Your task to perform on an android device: Show me popular videos on Youtube Image 0: 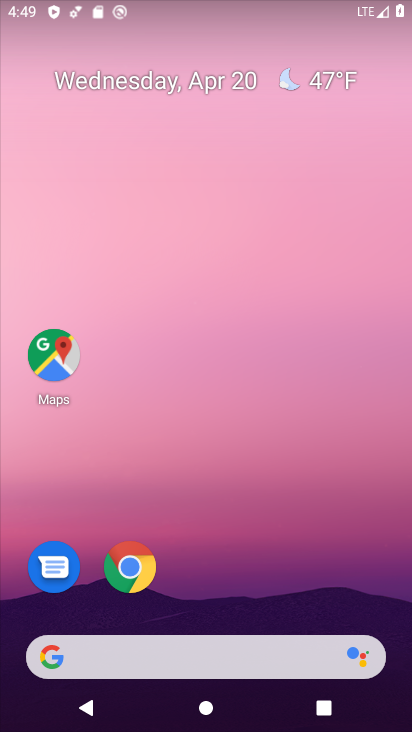
Step 0: drag from (255, 210) to (251, 22)
Your task to perform on an android device: Show me popular videos on Youtube Image 1: 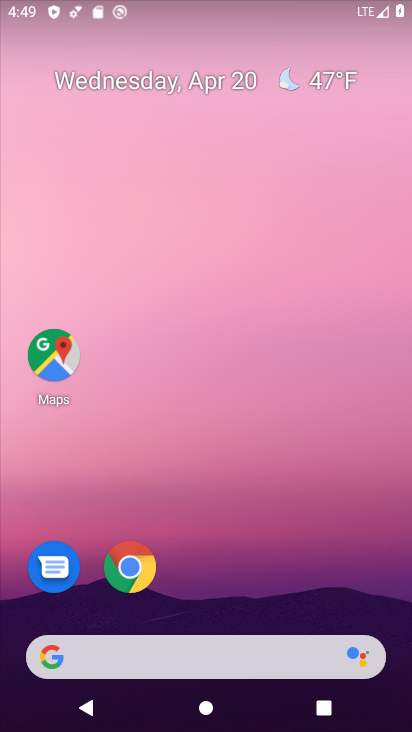
Step 1: drag from (341, 336) to (298, 50)
Your task to perform on an android device: Show me popular videos on Youtube Image 2: 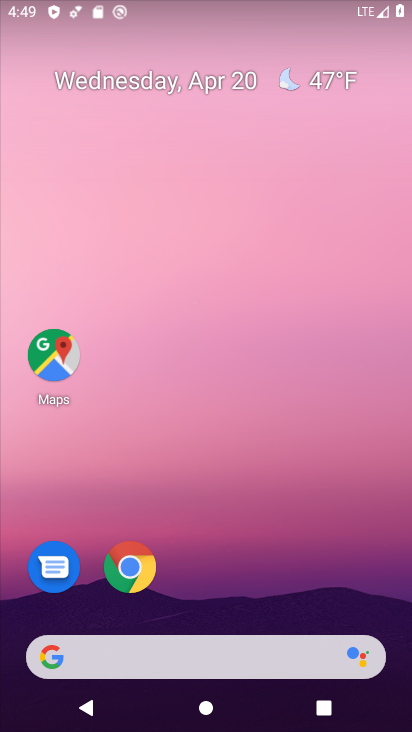
Step 2: drag from (398, 635) to (333, 0)
Your task to perform on an android device: Show me popular videos on Youtube Image 3: 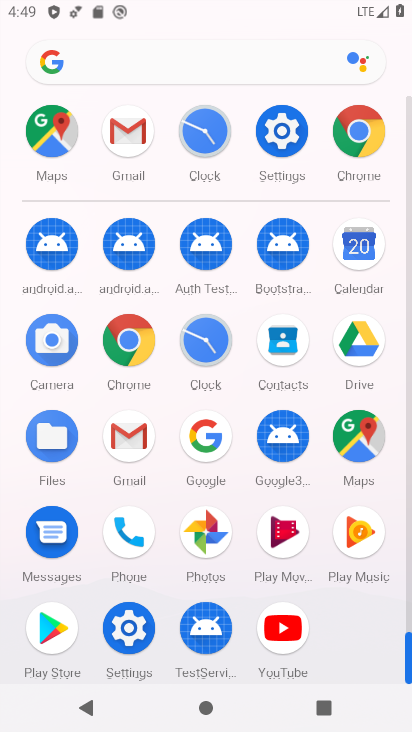
Step 3: click (281, 625)
Your task to perform on an android device: Show me popular videos on Youtube Image 4: 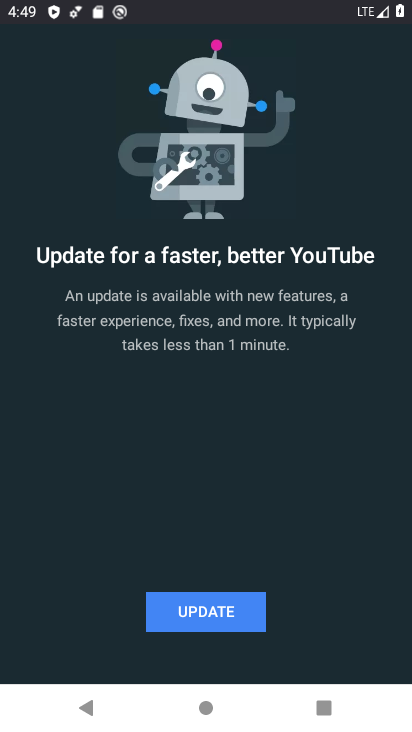
Step 4: click (218, 619)
Your task to perform on an android device: Show me popular videos on Youtube Image 5: 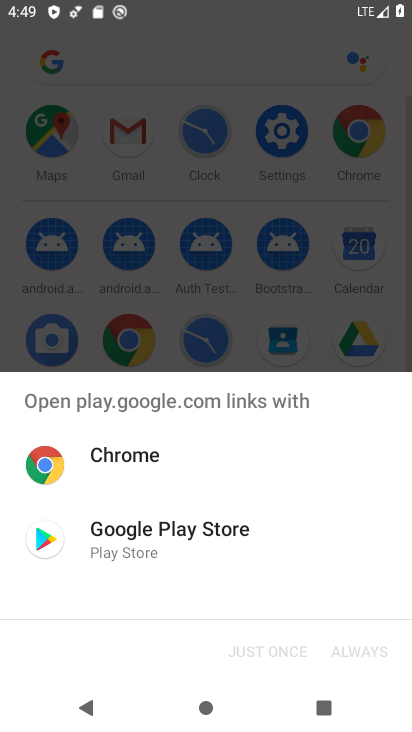
Step 5: click (209, 538)
Your task to perform on an android device: Show me popular videos on Youtube Image 6: 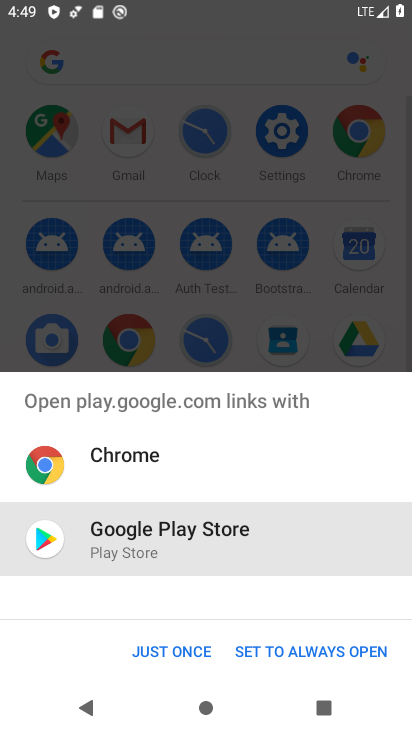
Step 6: click (257, 656)
Your task to perform on an android device: Show me popular videos on Youtube Image 7: 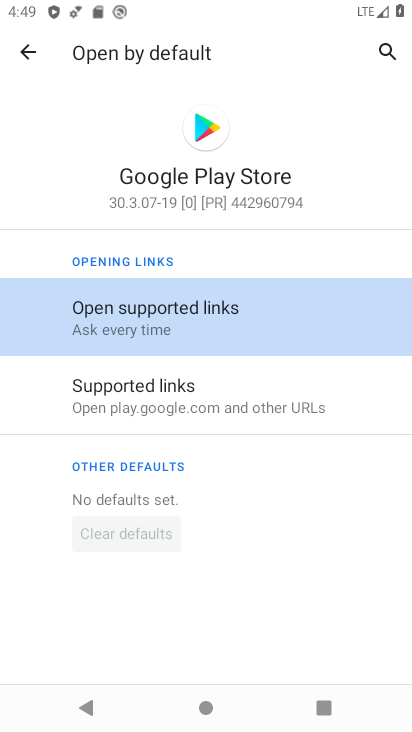
Step 7: press back button
Your task to perform on an android device: Show me popular videos on Youtube Image 8: 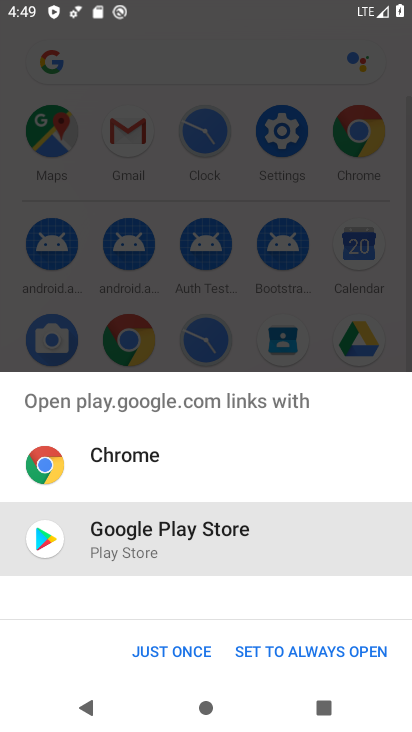
Step 8: click (170, 652)
Your task to perform on an android device: Show me popular videos on Youtube Image 9: 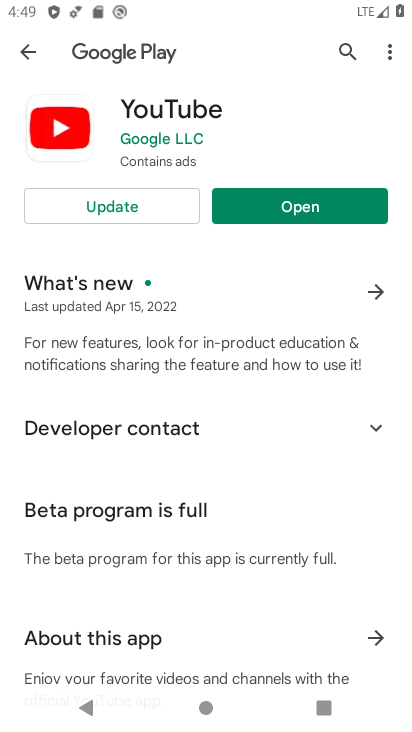
Step 9: click (135, 201)
Your task to perform on an android device: Show me popular videos on Youtube Image 10: 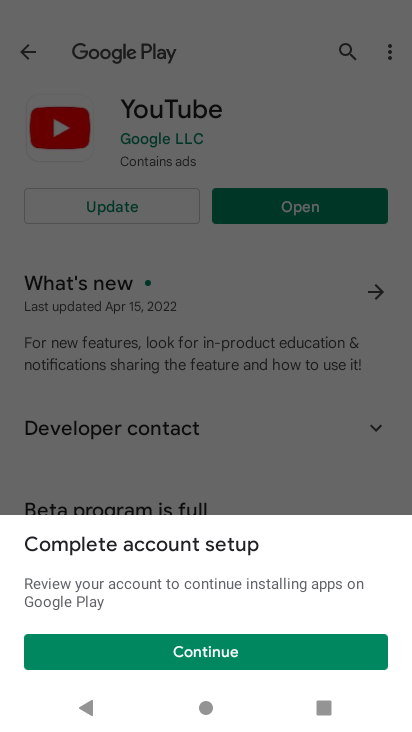
Step 10: click (198, 661)
Your task to perform on an android device: Show me popular videos on Youtube Image 11: 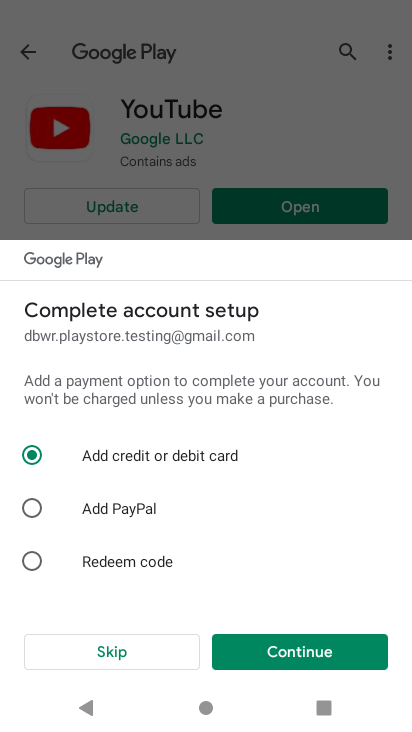
Step 11: click (149, 650)
Your task to perform on an android device: Show me popular videos on Youtube Image 12: 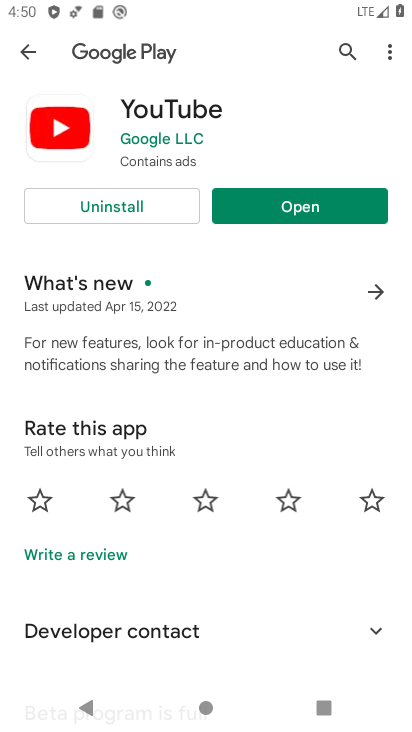
Step 12: click (299, 208)
Your task to perform on an android device: Show me popular videos on Youtube Image 13: 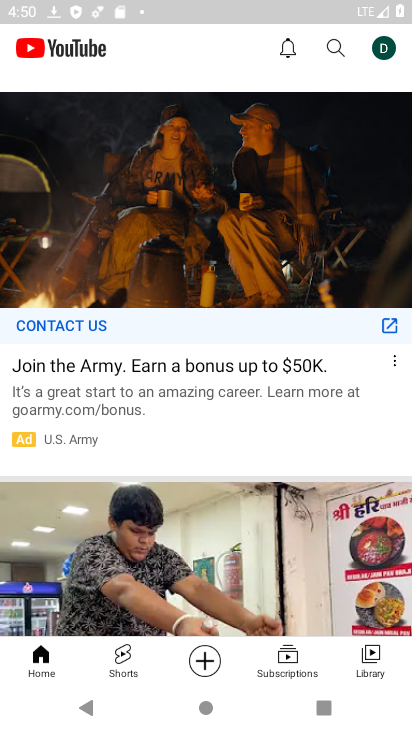
Step 13: drag from (92, 185) to (71, 437)
Your task to perform on an android device: Show me popular videos on Youtube Image 14: 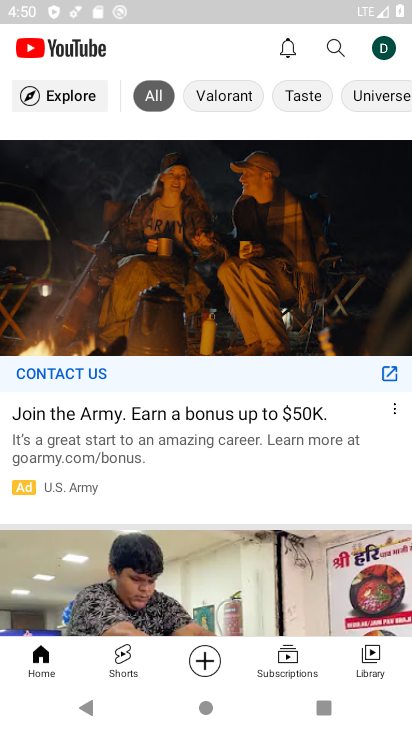
Step 14: click (68, 101)
Your task to perform on an android device: Show me popular videos on Youtube Image 15: 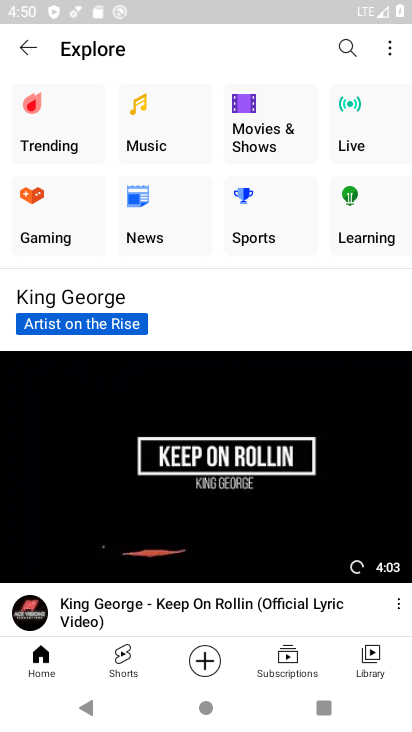
Step 15: click (63, 133)
Your task to perform on an android device: Show me popular videos on Youtube Image 16: 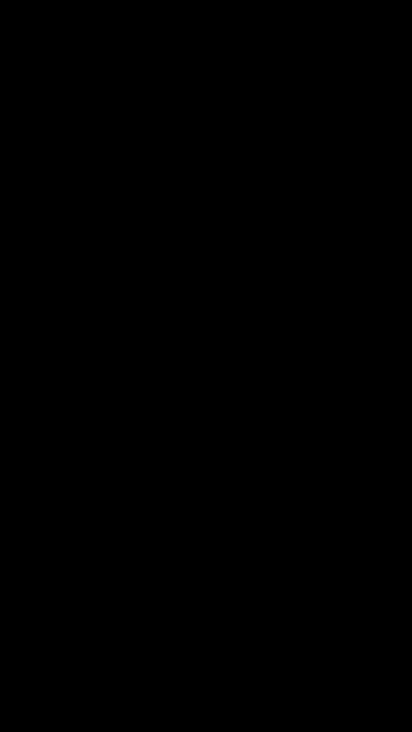
Step 16: task complete